Your task to perform on an android device: toggle data saver in the chrome app Image 0: 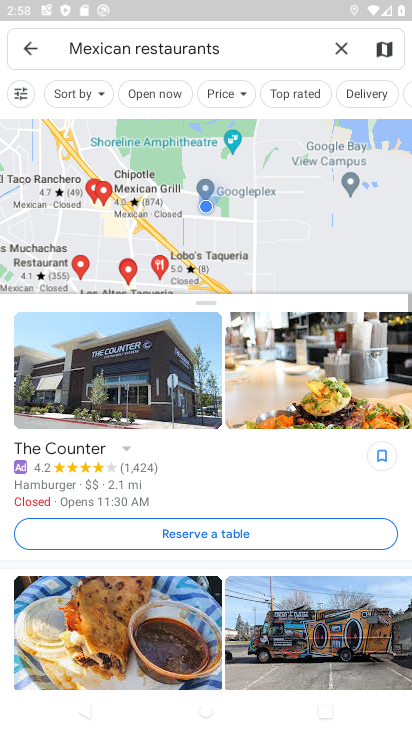
Step 0: click (320, 9)
Your task to perform on an android device: toggle data saver in the chrome app Image 1: 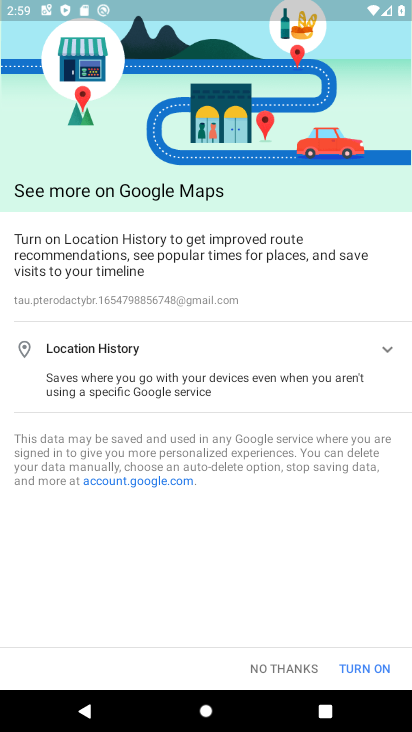
Step 1: press home button
Your task to perform on an android device: toggle data saver in the chrome app Image 2: 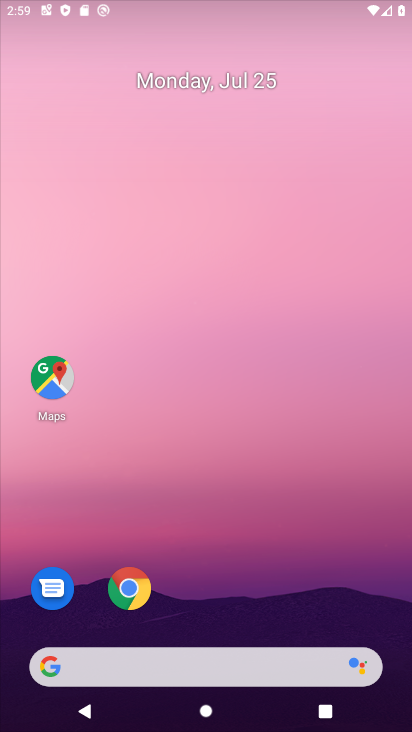
Step 2: drag from (345, 573) to (307, 56)
Your task to perform on an android device: toggle data saver in the chrome app Image 3: 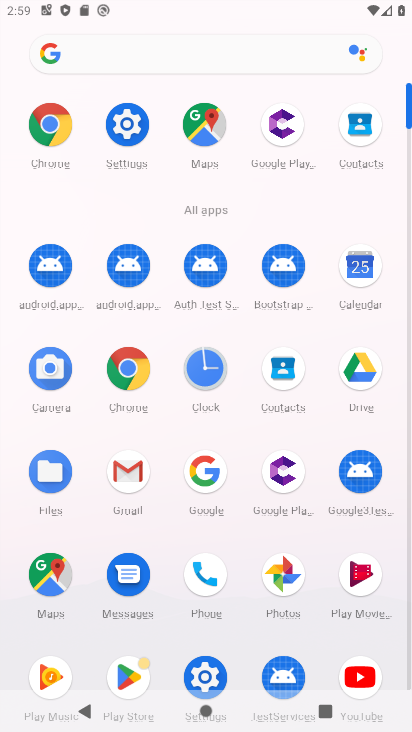
Step 3: click (53, 130)
Your task to perform on an android device: toggle data saver in the chrome app Image 4: 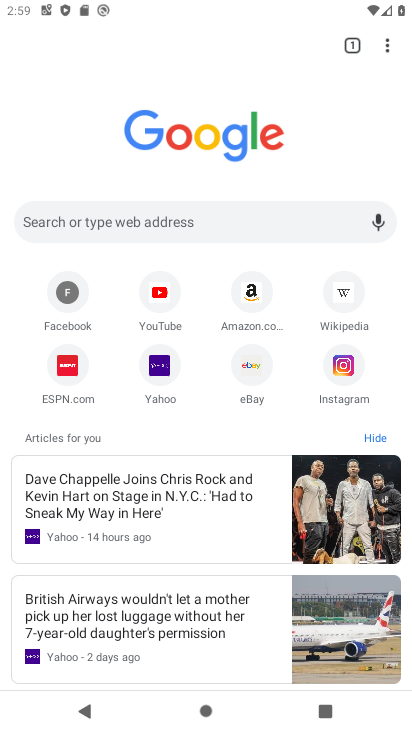
Step 4: click (389, 41)
Your task to perform on an android device: toggle data saver in the chrome app Image 5: 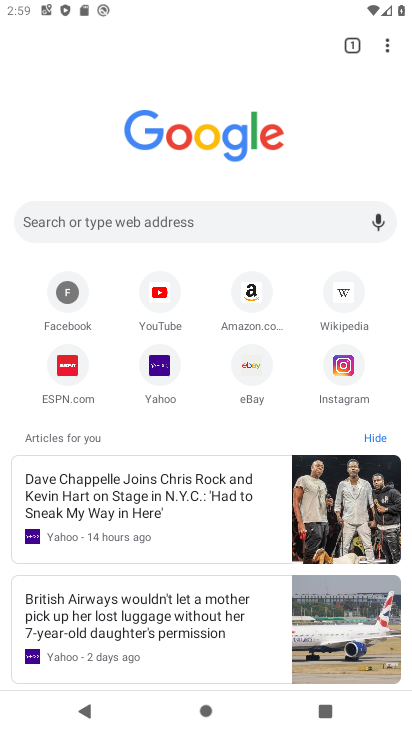
Step 5: drag from (389, 41) to (216, 392)
Your task to perform on an android device: toggle data saver in the chrome app Image 6: 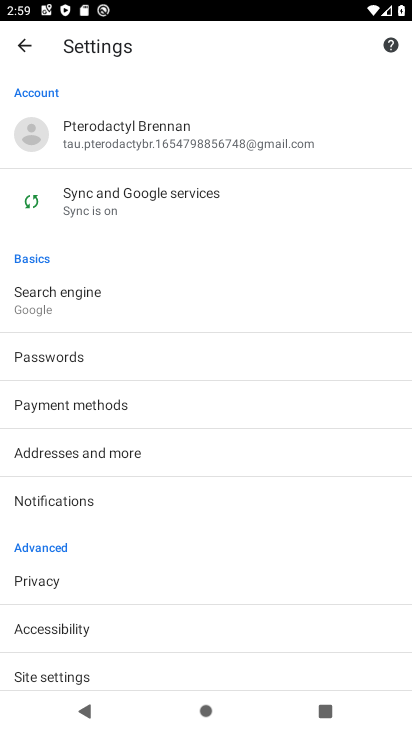
Step 6: drag from (261, 539) to (282, 87)
Your task to perform on an android device: toggle data saver in the chrome app Image 7: 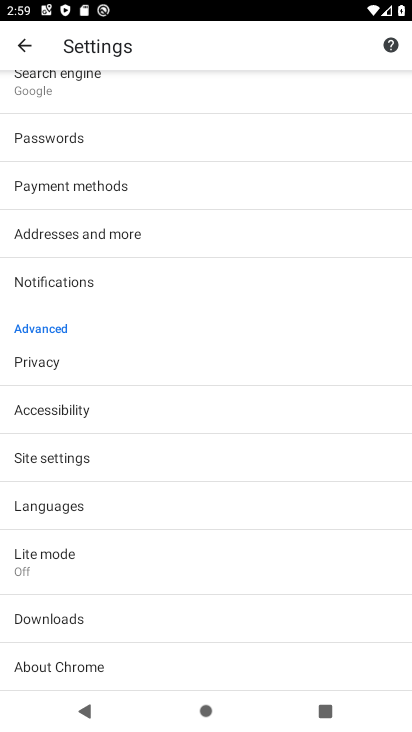
Step 7: click (59, 571)
Your task to perform on an android device: toggle data saver in the chrome app Image 8: 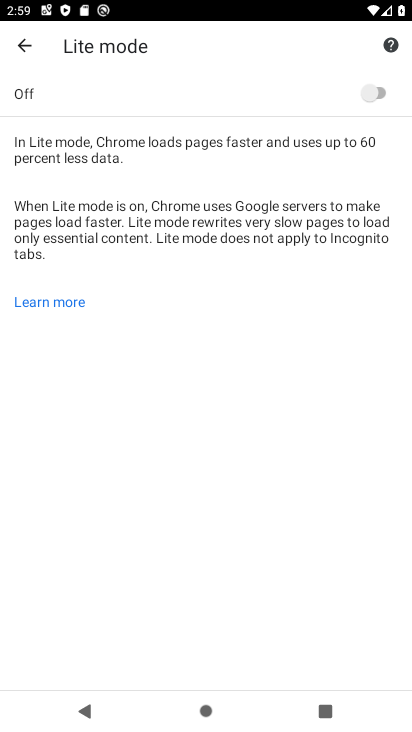
Step 8: click (382, 87)
Your task to perform on an android device: toggle data saver in the chrome app Image 9: 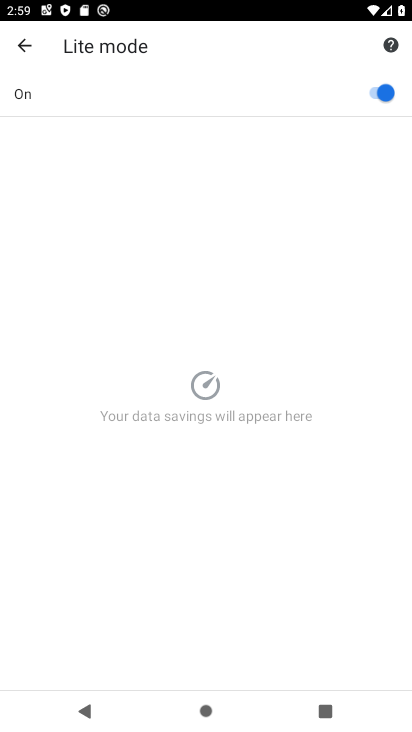
Step 9: task complete